Your task to perform on an android device: Go to Wikipedia Image 0: 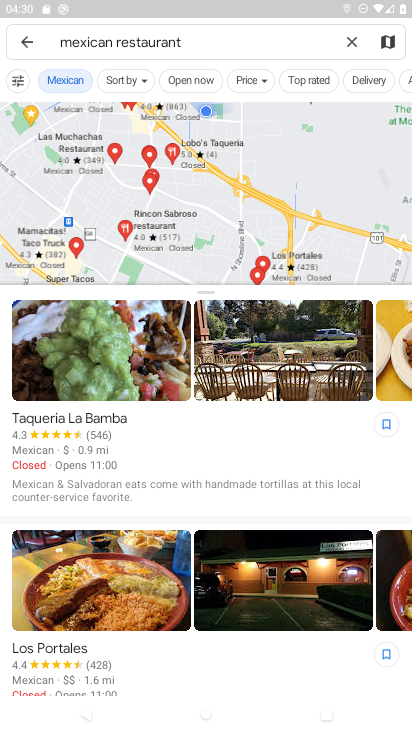
Step 0: press home button
Your task to perform on an android device: Go to Wikipedia Image 1: 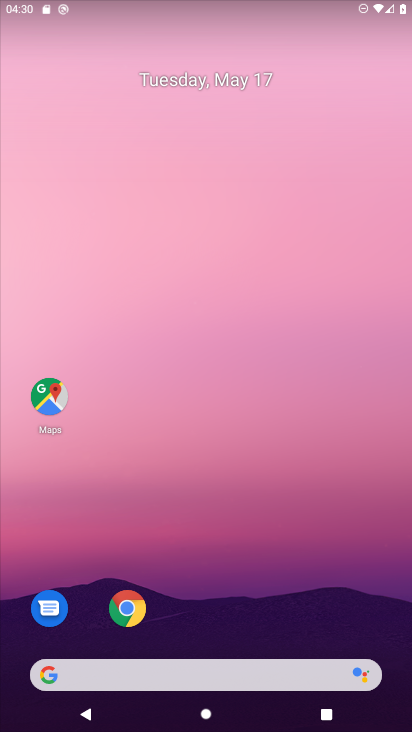
Step 1: drag from (173, 653) to (237, 234)
Your task to perform on an android device: Go to Wikipedia Image 2: 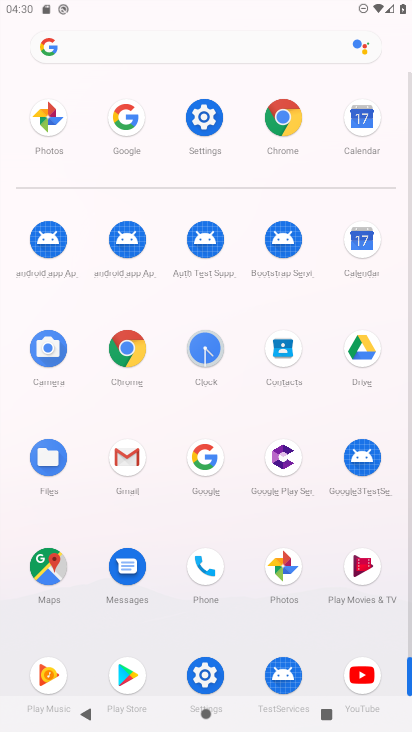
Step 2: click (278, 128)
Your task to perform on an android device: Go to Wikipedia Image 3: 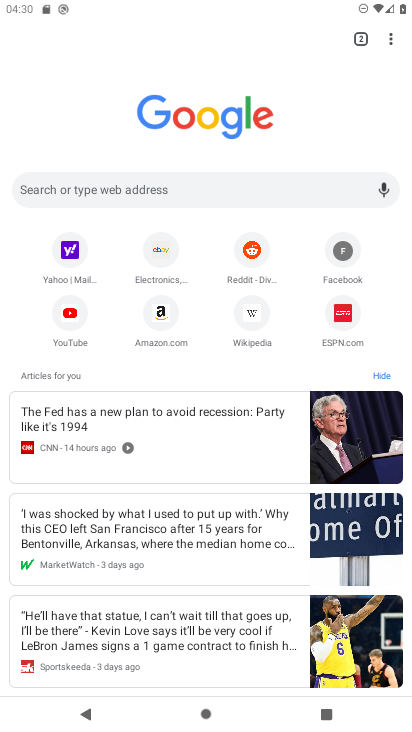
Step 3: click (254, 314)
Your task to perform on an android device: Go to Wikipedia Image 4: 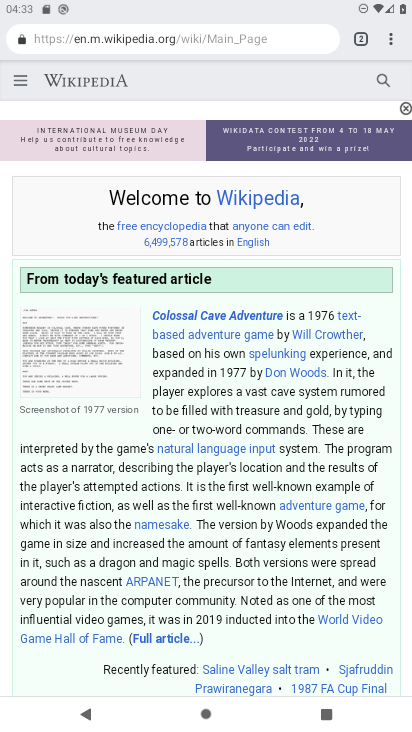
Step 4: task complete